Your task to perform on an android device: Go to internet settings Image 0: 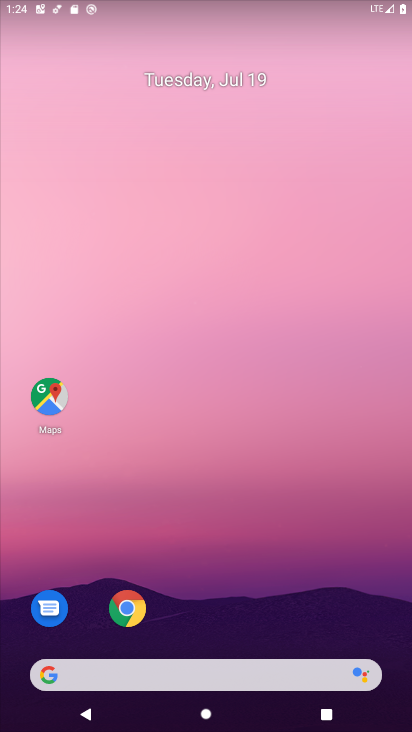
Step 0: drag from (248, 619) to (239, 169)
Your task to perform on an android device: Go to internet settings Image 1: 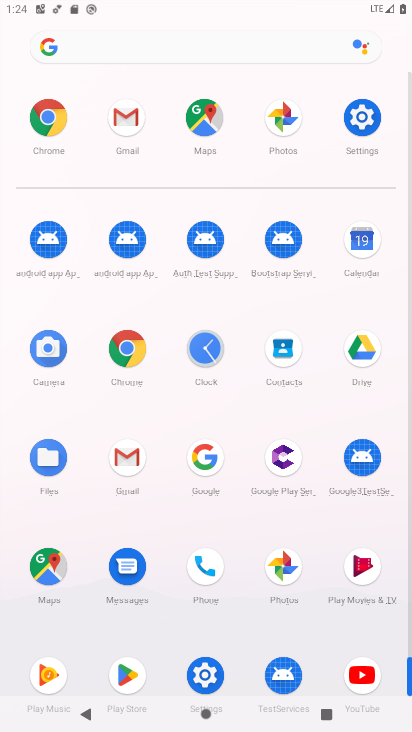
Step 1: click (204, 675)
Your task to perform on an android device: Go to internet settings Image 2: 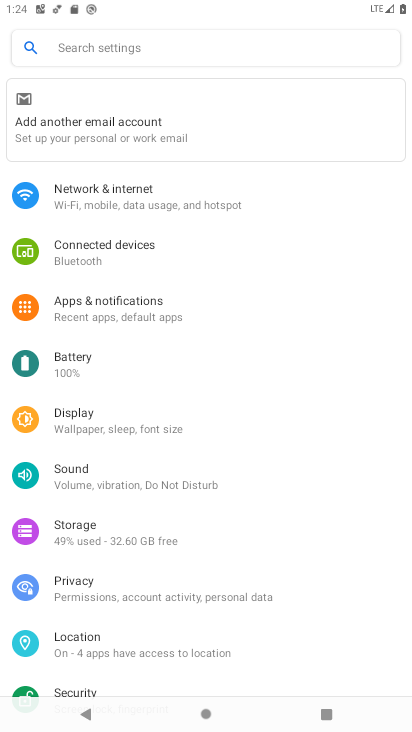
Step 2: click (152, 190)
Your task to perform on an android device: Go to internet settings Image 3: 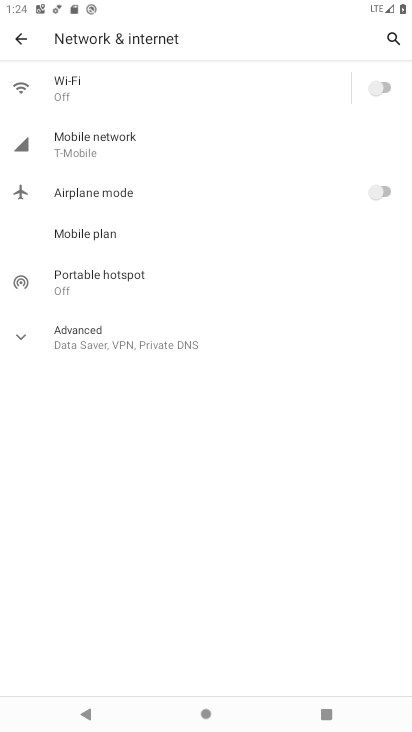
Step 3: click (180, 140)
Your task to perform on an android device: Go to internet settings Image 4: 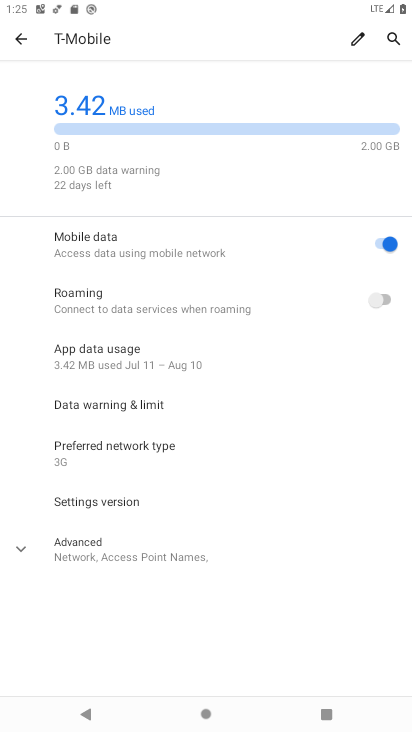
Step 4: task complete